Your task to perform on an android device: What is the recent news? Image 0: 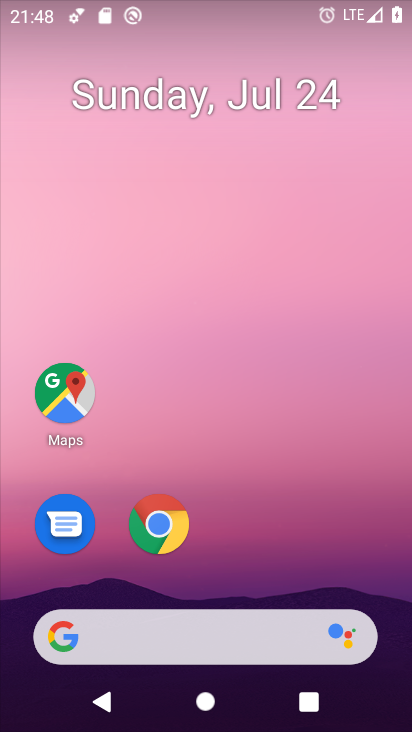
Step 0: click (281, 650)
Your task to perform on an android device: What is the recent news? Image 1: 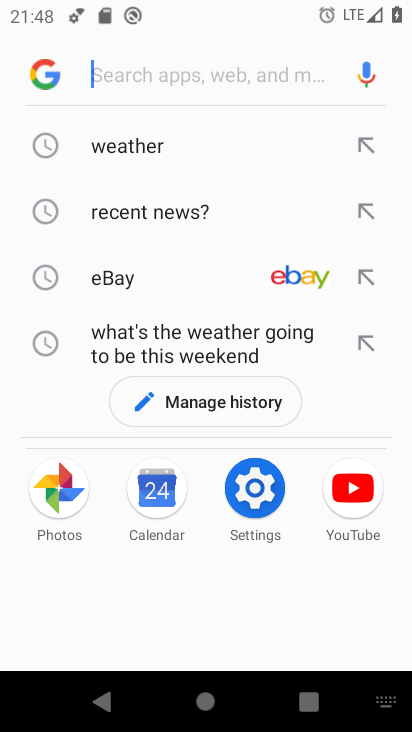
Step 1: click (162, 213)
Your task to perform on an android device: What is the recent news? Image 2: 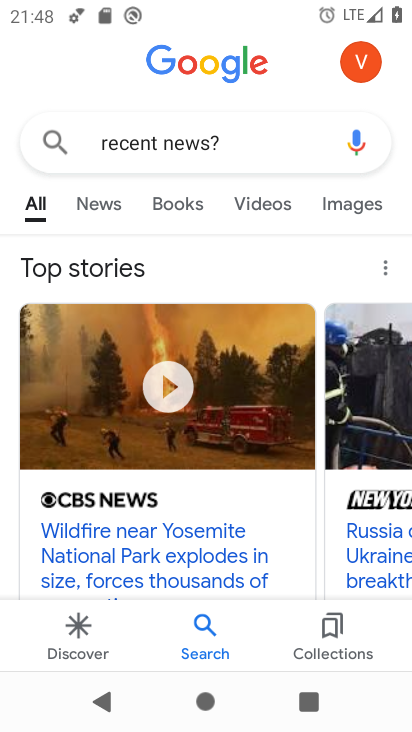
Step 2: task complete